Your task to perform on an android device: Open Reddit.com Image 0: 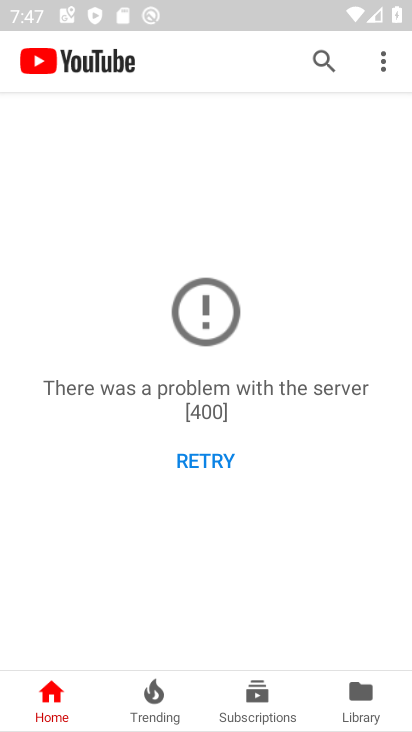
Step 0: press home button
Your task to perform on an android device: Open Reddit.com Image 1: 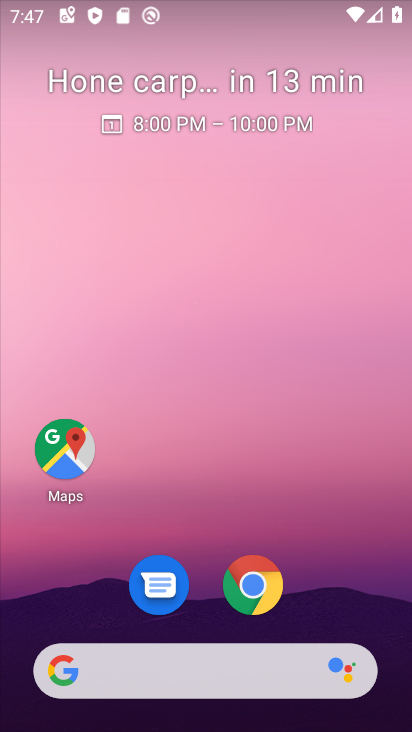
Step 1: click (276, 664)
Your task to perform on an android device: Open Reddit.com Image 2: 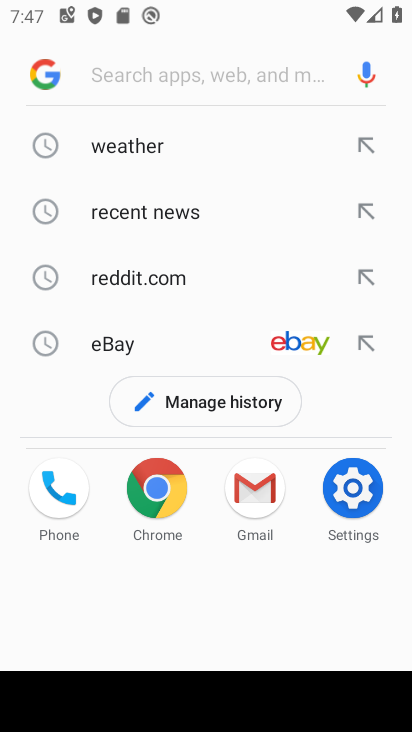
Step 2: click (157, 274)
Your task to perform on an android device: Open Reddit.com Image 3: 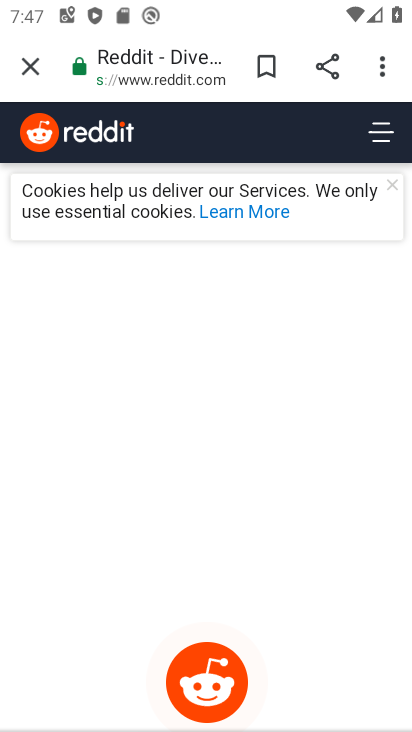
Step 3: task complete